Your task to perform on an android device: turn off sleep mode Image 0: 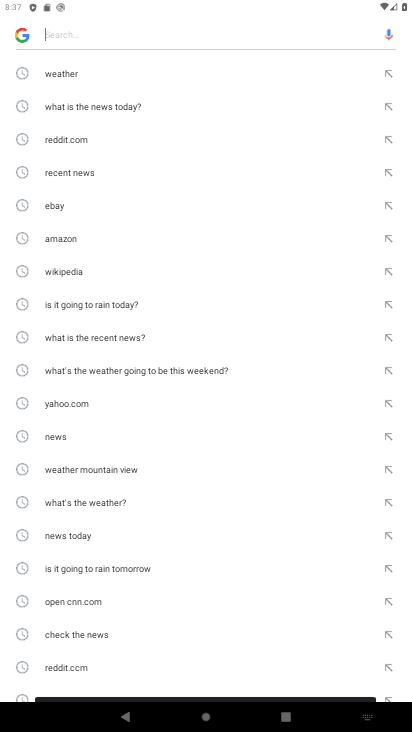
Step 0: press home button
Your task to perform on an android device: turn off sleep mode Image 1: 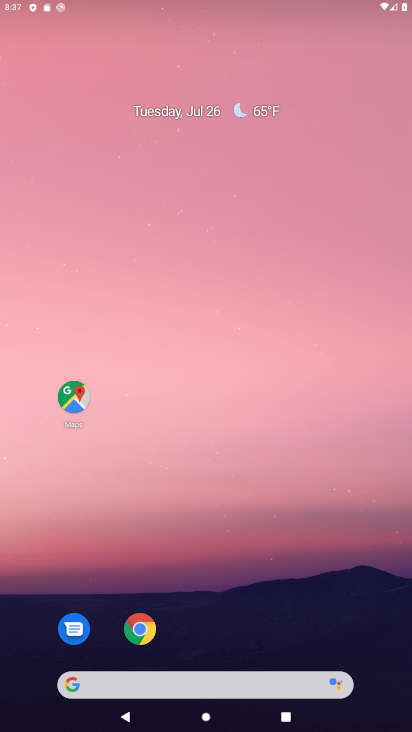
Step 1: drag from (324, 561) to (235, 18)
Your task to perform on an android device: turn off sleep mode Image 2: 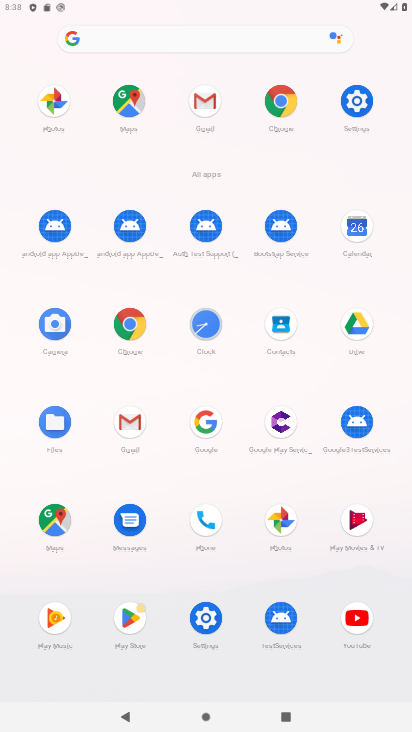
Step 2: click (355, 102)
Your task to perform on an android device: turn off sleep mode Image 3: 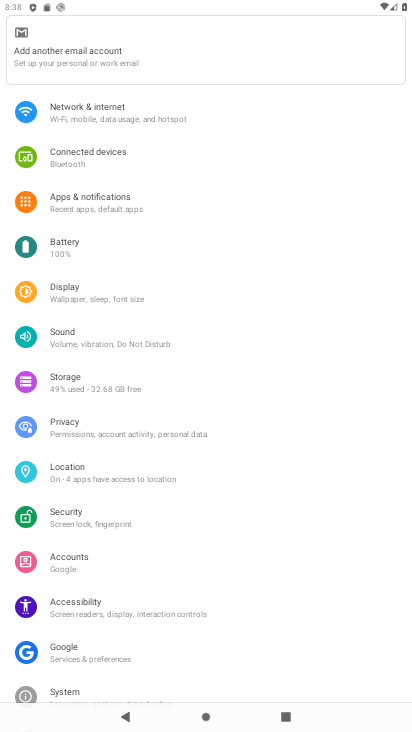
Step 3: click (123, 294)
Your task to perform on an android device: turn off sleep mode Image 4: 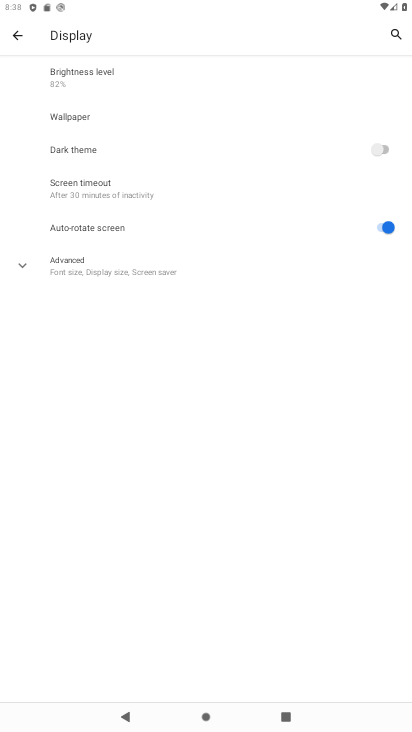
Step 4: click (132, 196)
Your task to perform on an android device: turn off sleep mode Image 5: 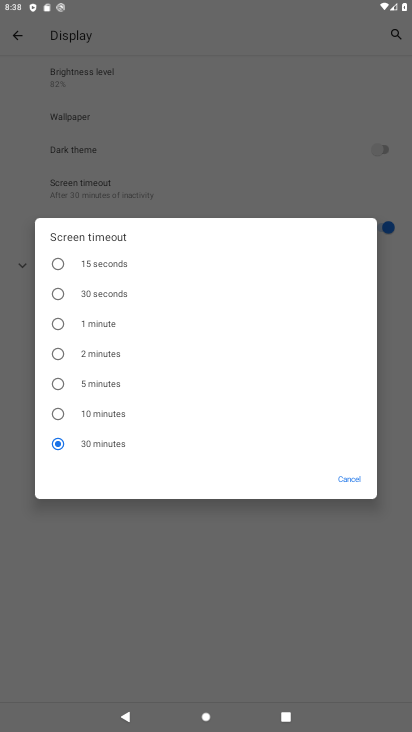
Step 5: task complete